Your task to perform on an android device: Search for seafood restaurants on Google Maps Image 0: 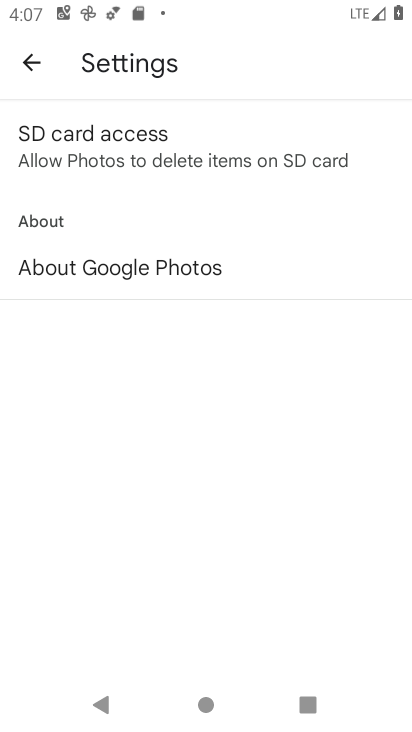
Step 0: press home button
Your task to perform on an android device: Search for seafood restaurants on Google Maps Image 1: 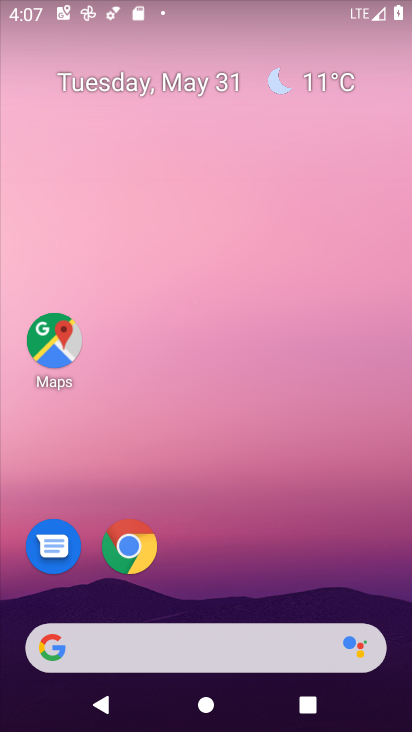
Step 1: click (61, 338)
Your task to perform on an android device: Search for seafood restaurants on Google Maps Image 2: 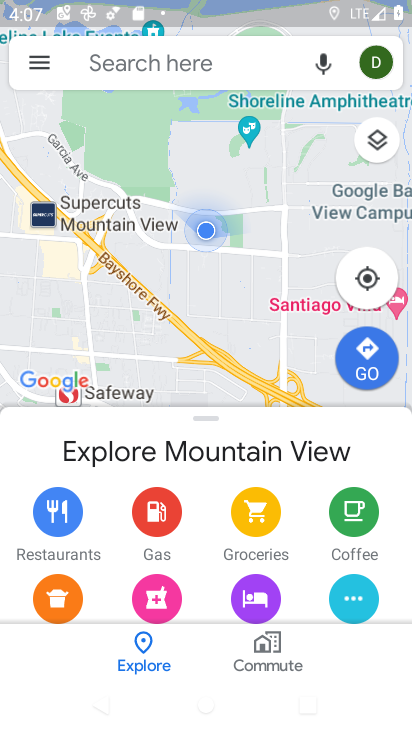
Step 2: click (123, 57)
Your task to perform on an android device: Search for seafood restaurants on Google Maps Image 3: 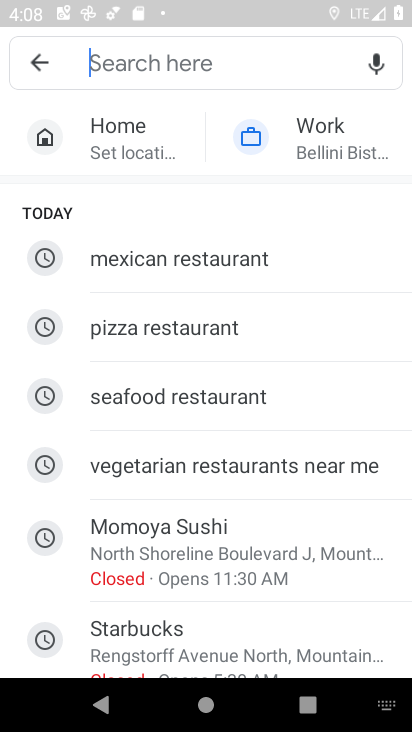
Step 3: click (203, 400)
Your task to perform on an android device: Search for seafood restaurants on Google Maps Image 4: 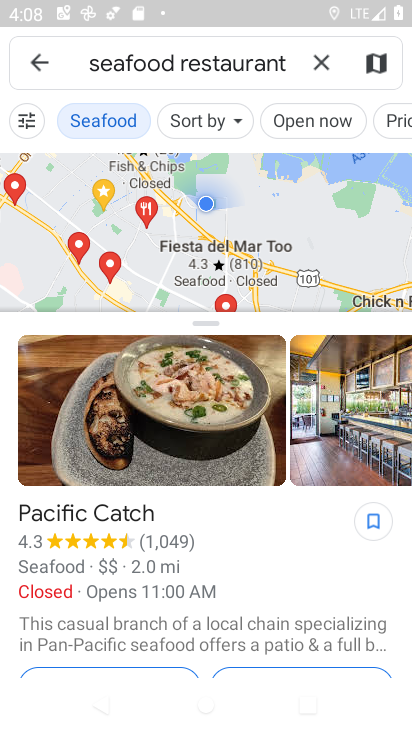
Step 4: task complete